Your task to perform on an android device: Open Google Chrome and open the bookmarks view Image 0: 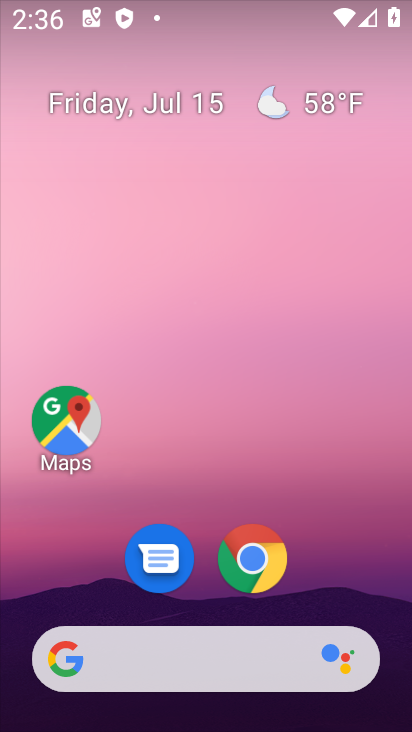
Step 0: drag from (366, 567) to (364, 123)
Your task to perform on an android device: Open Google Chrome and open the bookmarks view Image 1: 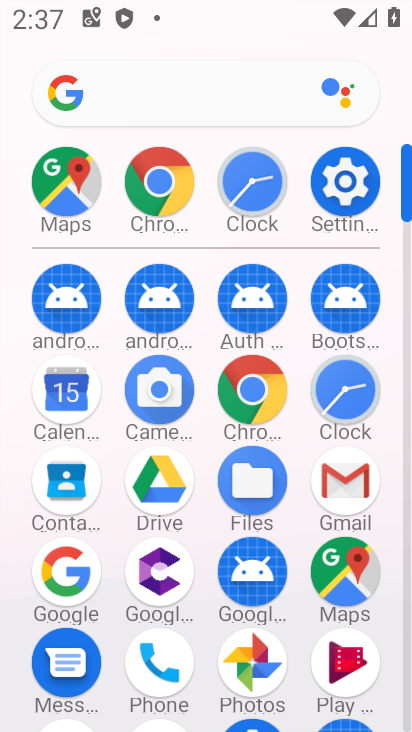
Step 1: click (269, 388)
Your task to perform on an android device: Open Google Chrome and open the bookmarks view Image 2: 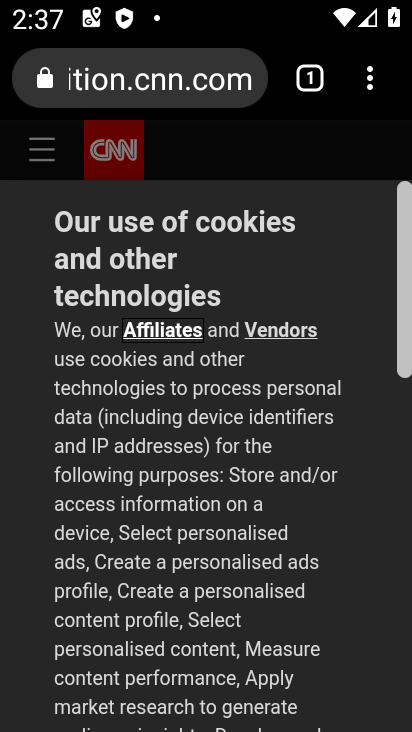
Step 2: click (373, 81)
Your task to perform on an android device: Open Google Chrome and open the bookmarks view Image 3: 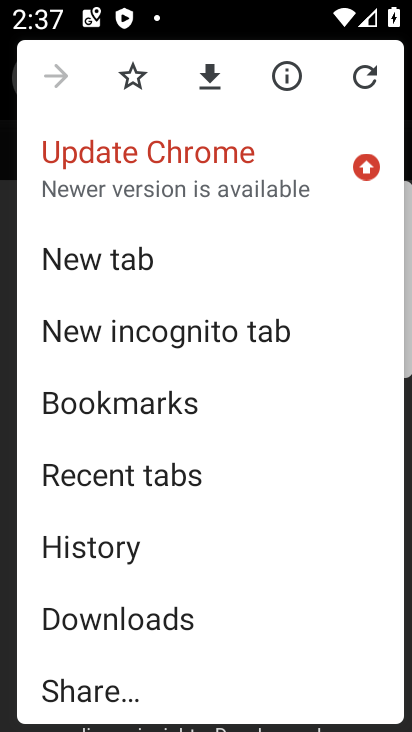
Step 3: click (186, 417)
Your task to perform on an android device: Open Google Chrome and open the bookmarks view Image 4: 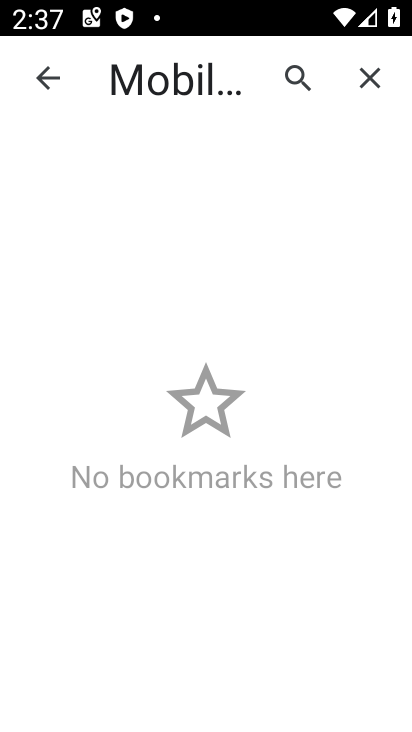
Step 4: task complete